Your task to perform on an android device: toggle airplane mode Image 0: 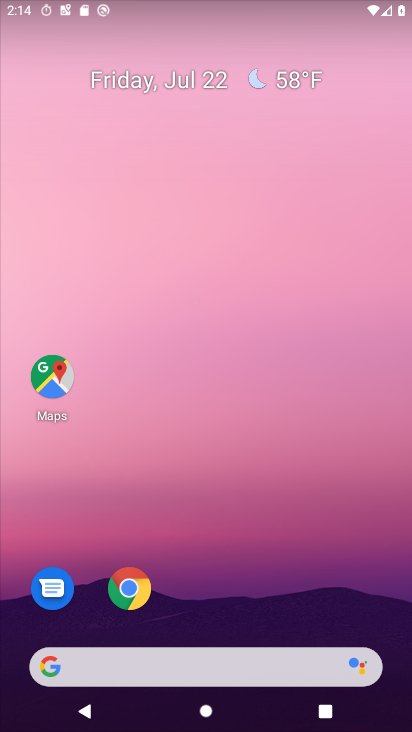
Step 0: press home button
Your task to perform on an android device: toggle airplane mode Image 1: 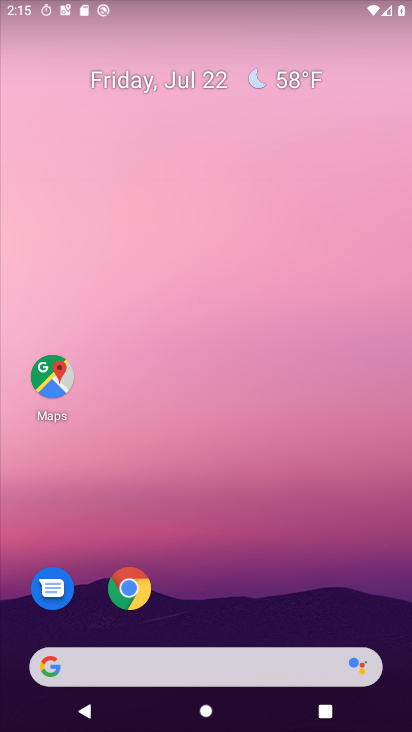
Step 1: drag from (380, 7) to (143, 723)
Your task to perform on an android device: toggle airplane mode Image 2: 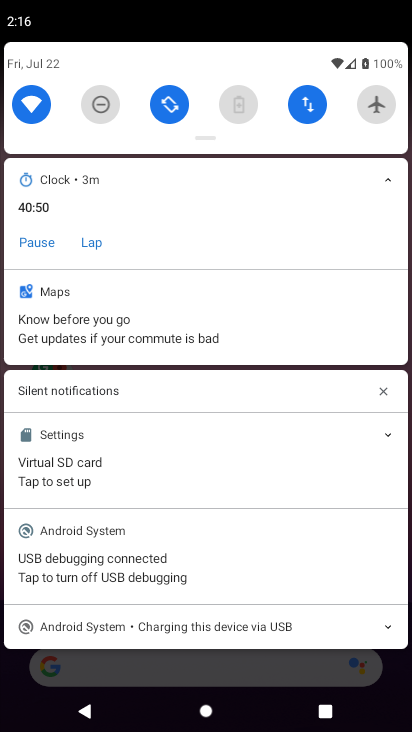
Step 2: click (389, 102)
Your task to perform on an android device: toggle airplane mode Image 3: 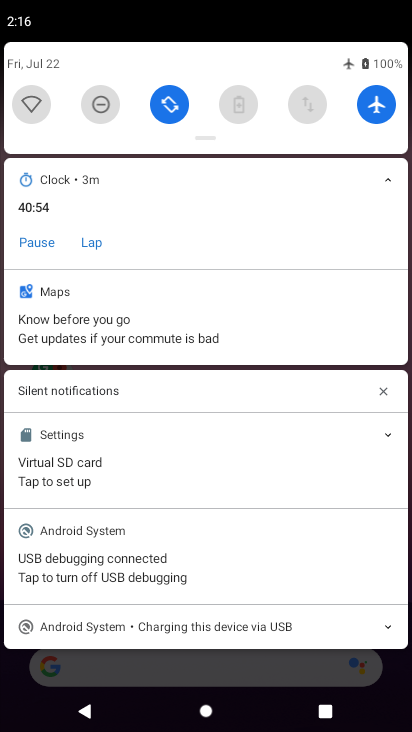
Step 3: task complete